Your task to perform on an android device: Open calendar and show me the third week of next month Image 0: 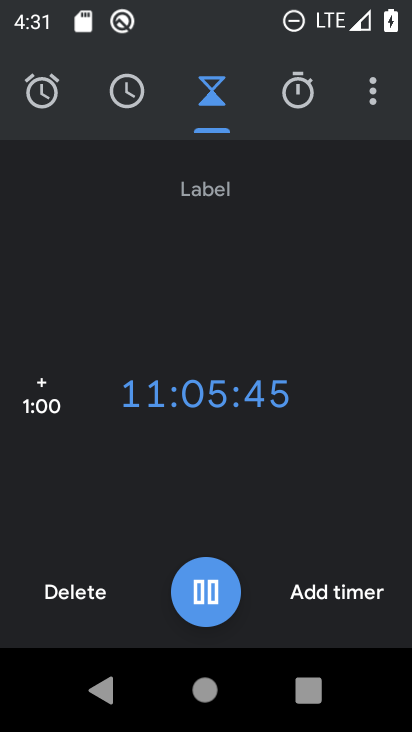
Step 0: press home button
Your task to perform on an android device: Open calendar and show me the third week of next month Image 1: 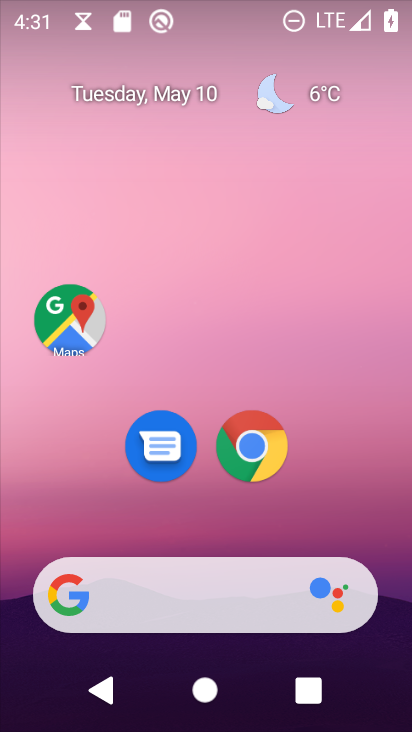
Step 1: drag from (332, 519) to (239, 31)
Your task to perform on an android device: Open calendar and show me the third week of next month Image 2: 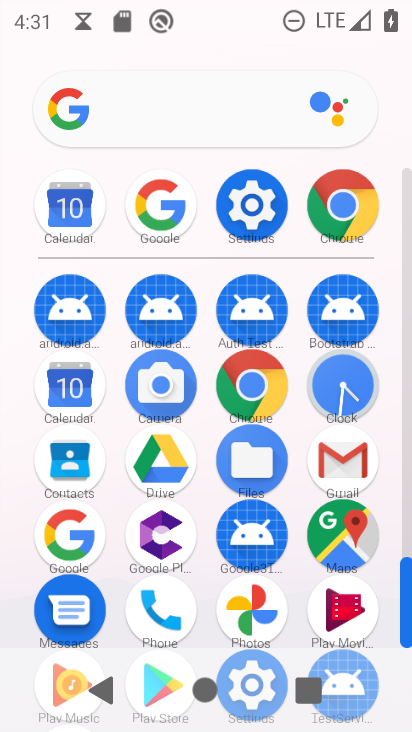
Step 2: click (78, 389)
Your task to perform on an android device: Open calendar and show me the third week of next month Image 3: 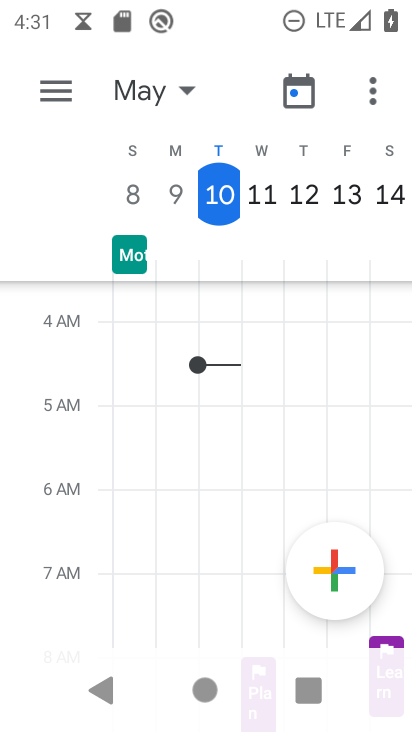
Step 3: click (183, 90)
Your task to perform on an android device: Open calendar and show me the third week of next month Image 4: 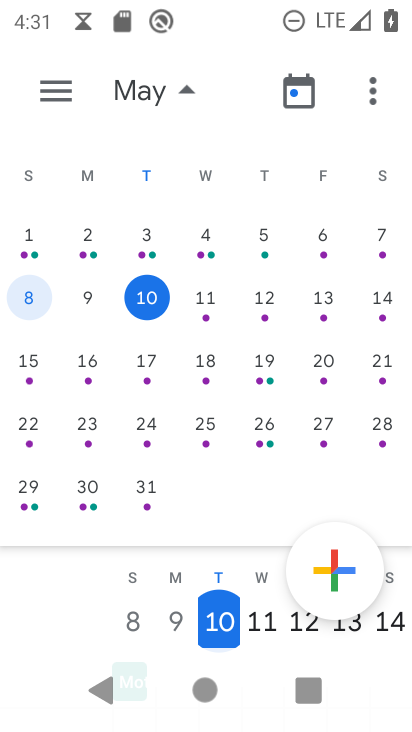
Step 4: drag from (333, 336) to (32, 297)
Your task to perform on an android device: Open calendar and show me the third week of next month Image 5: 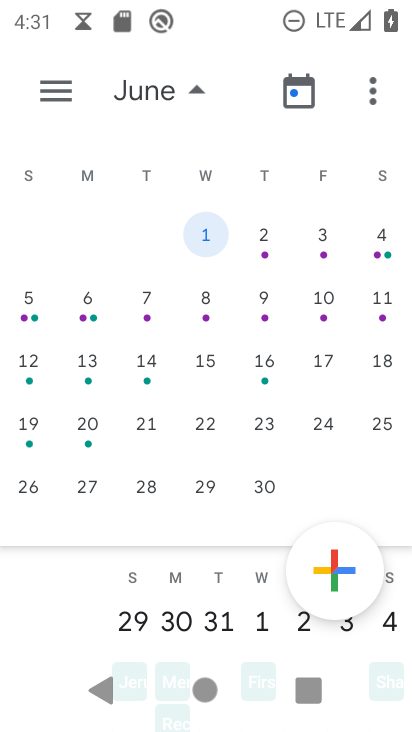
Step 5: click (46, 368)
Your task to perform on an android device: Open calendar and show me the third week of next month Image 6: 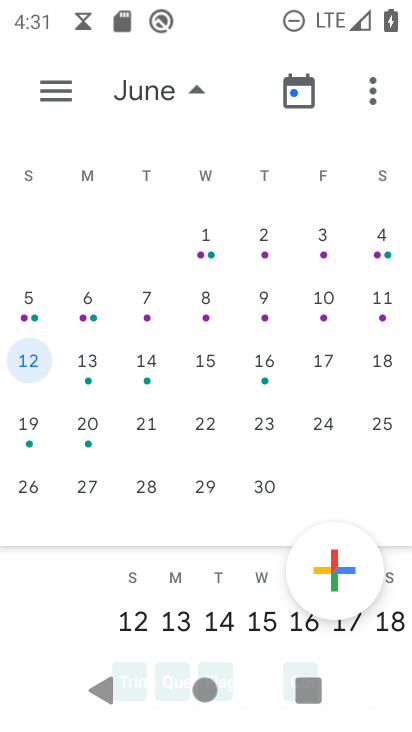
Step 6: task complete